Your task to perform on an android device: change your default location settings in chrome Image 0: 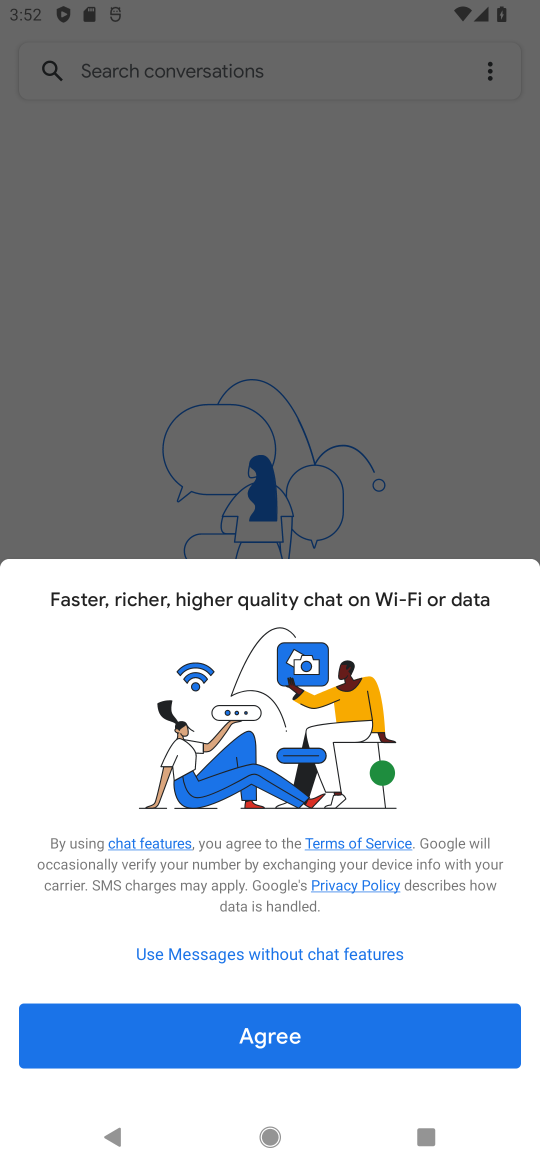
Step 0: press home button
Your task to perform on an android device: change your default location settings in chrome Image 1: 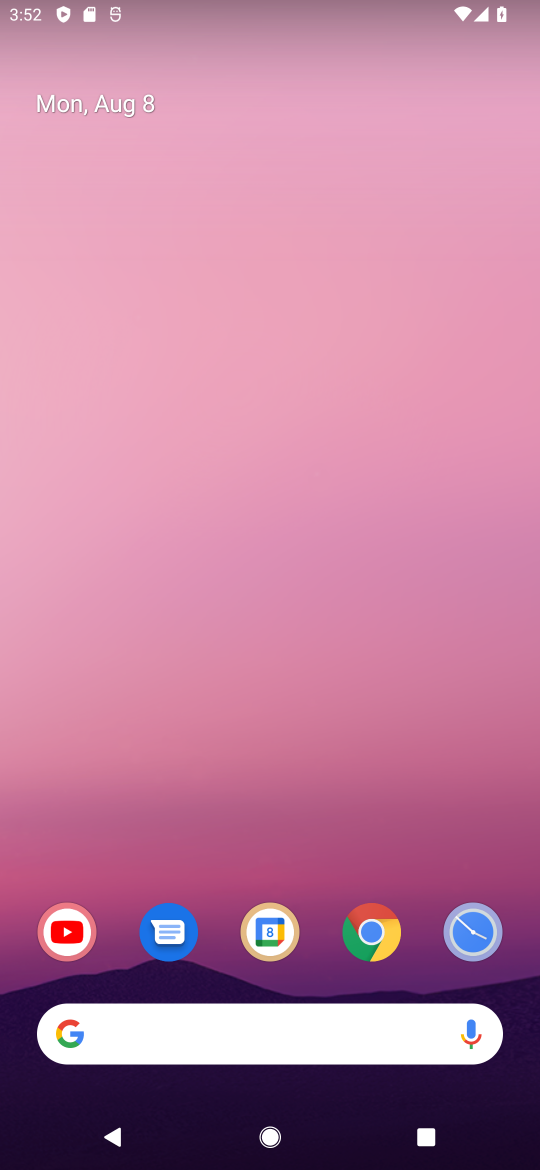
Step 1: click (377, 945)
Your task to perform on an android device: change your default location settings in chrome Image 2: 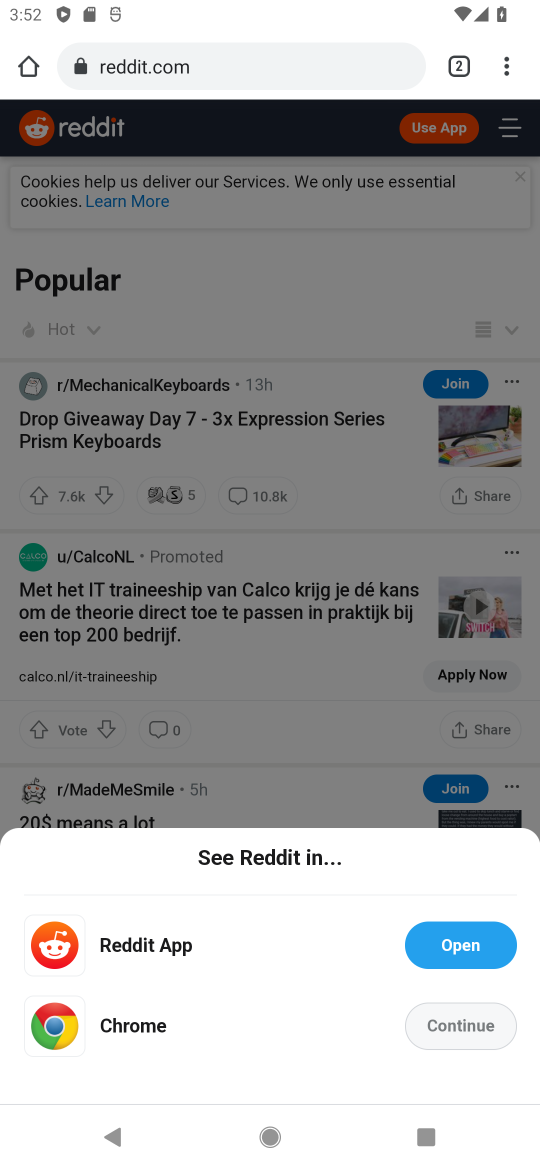
Step 2: click (515, 82)
Your task to perform on an android device: change your default location settings in chrome Image 3: 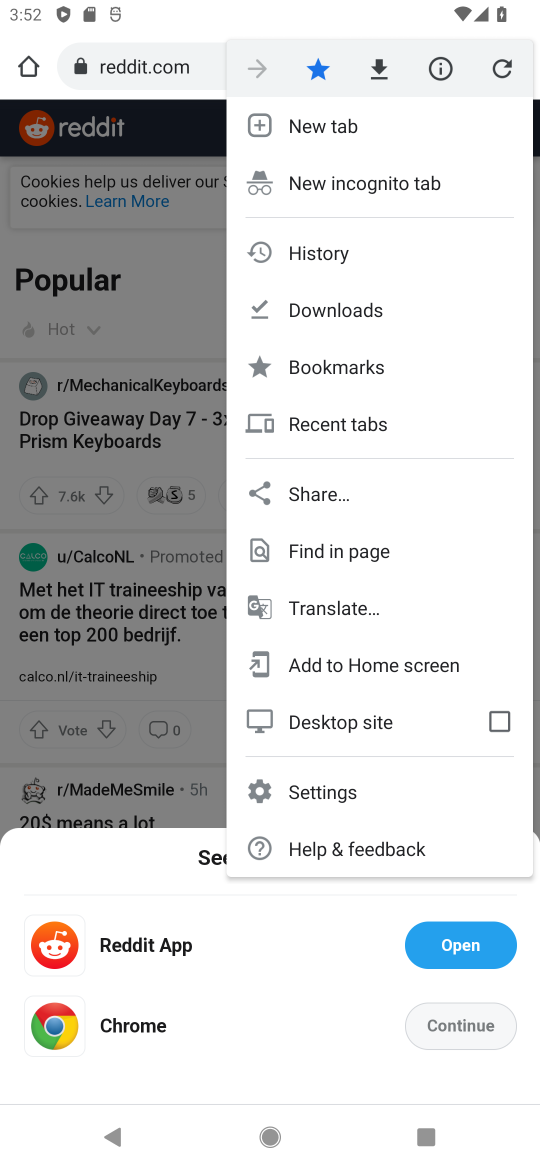
Step 3: click (317, 796)
Your task to perform on an android device: change your default location settings in chrome Image 4: 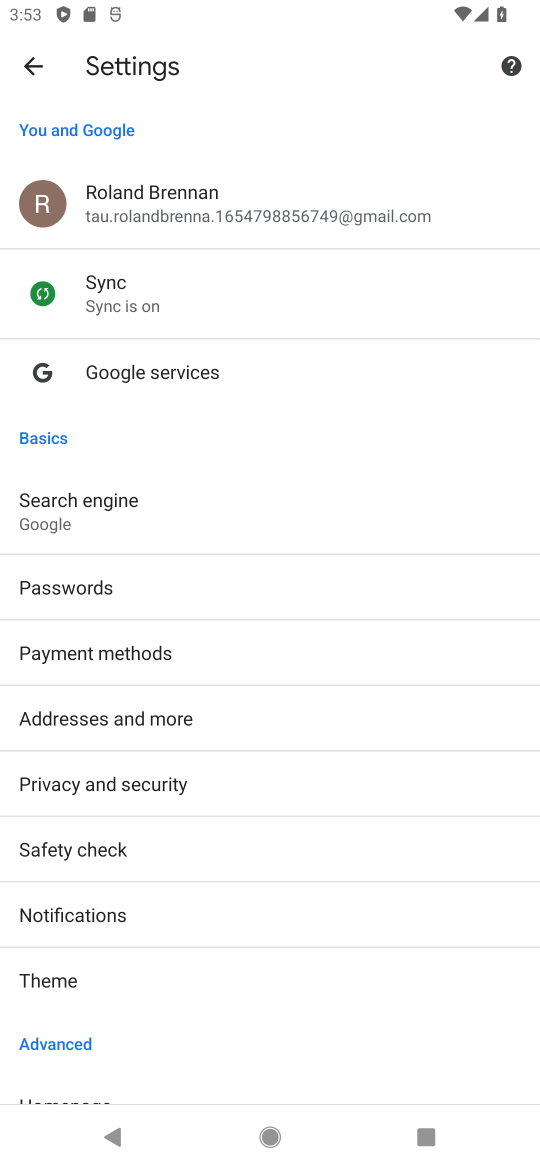
Step 4: drag from (346, 954) to (346, 377)
Your task to perform on an android device: change your default location settings in chrome Image 5: 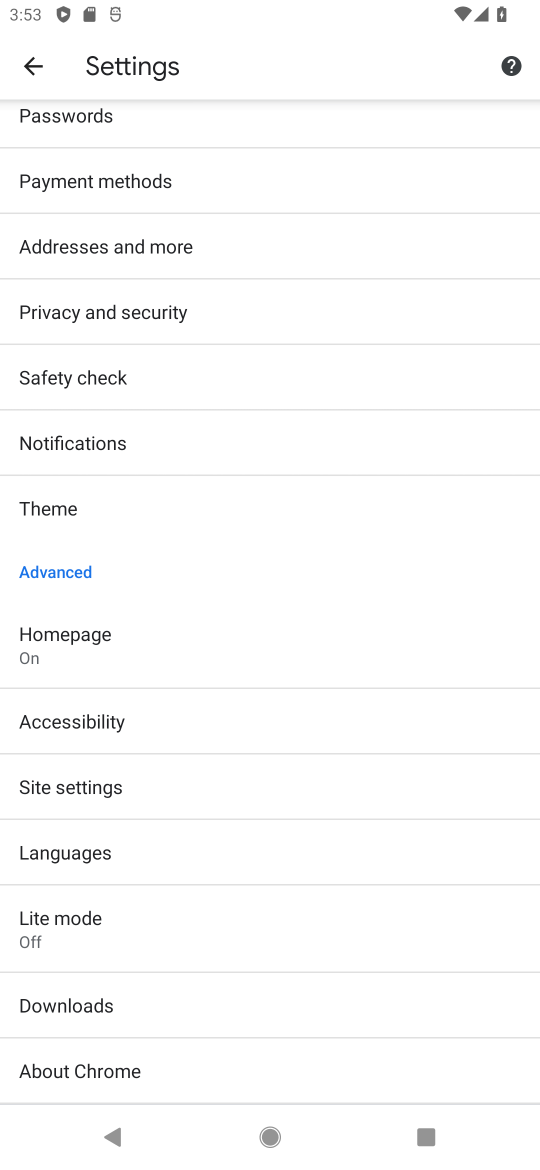
Step 5: click (102, 777)
Your task to perform on an android device: change your default location settings in chrome Image 6: 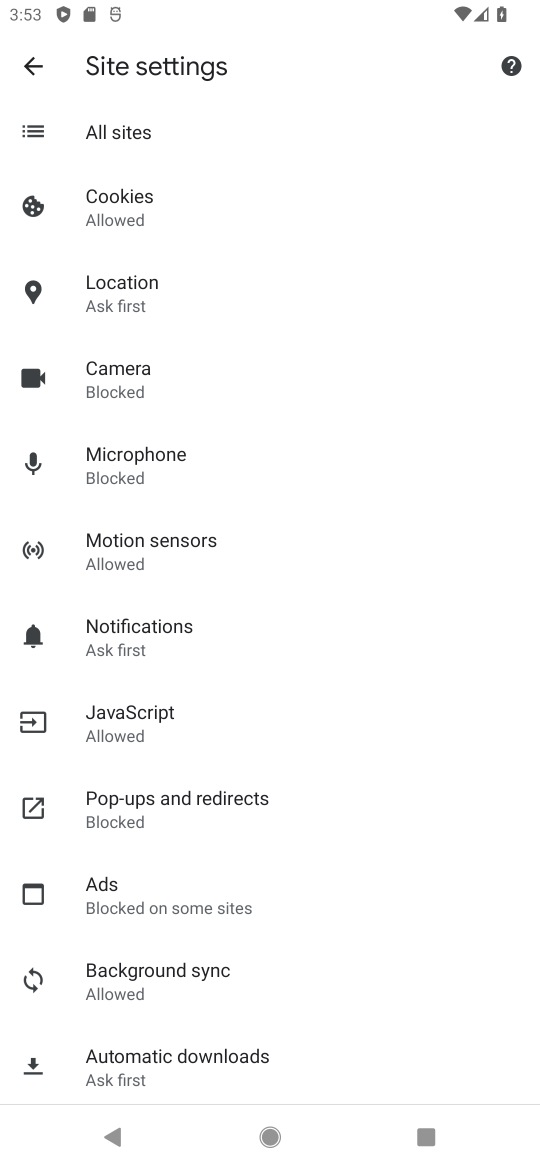
Step 6: drag from (402, 960) to (356, 179)
Your task to perform on an android device: change your default location settings in chrome Image 7: 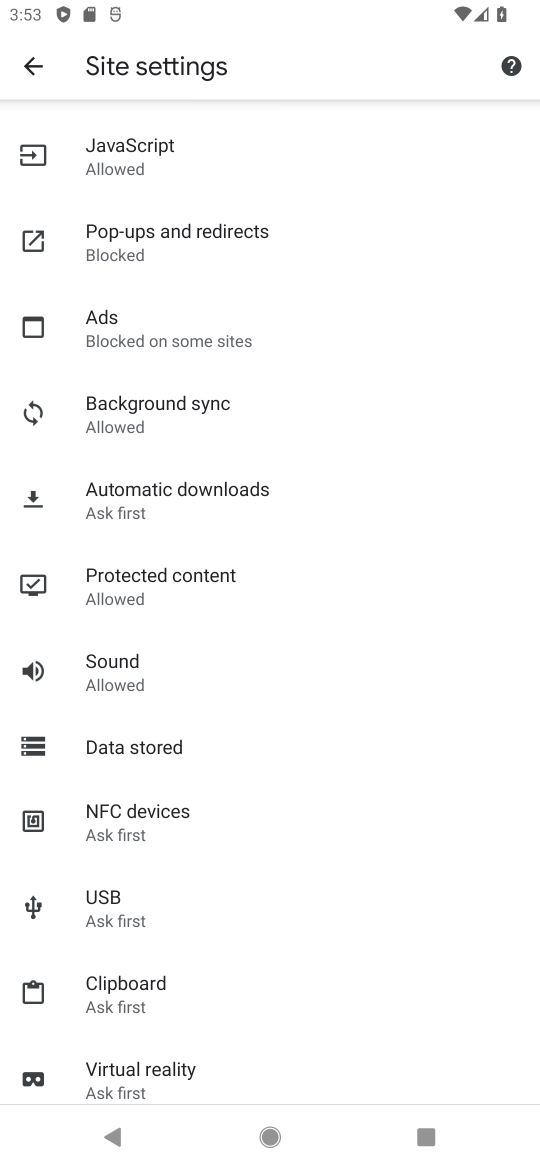
Step 7: drag from (311, 203) to (420, 1162)
Your task to perform on an android device: change your default location settings in chrome Image 8: 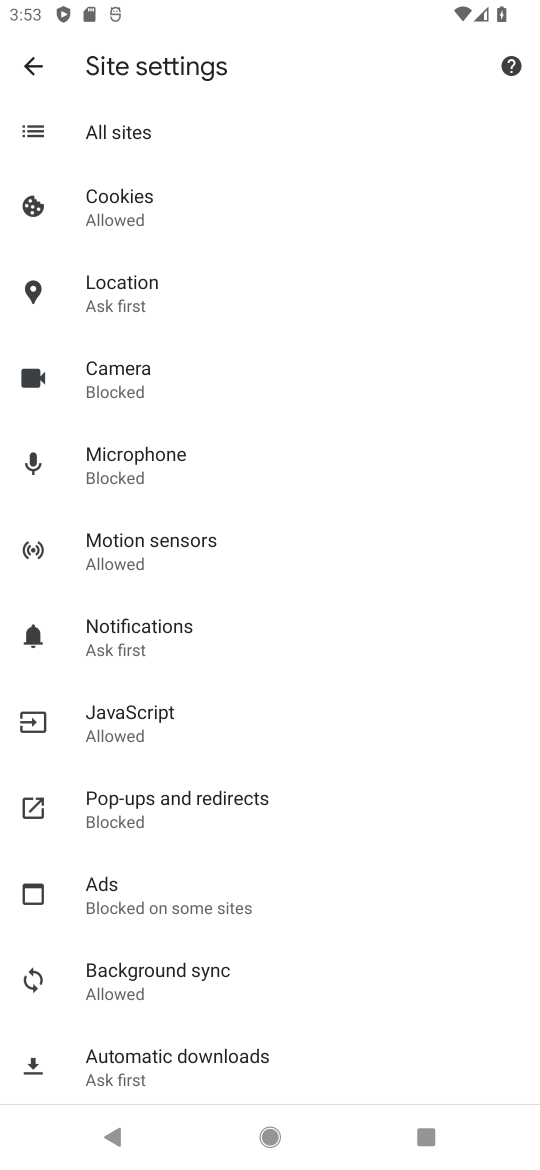
Step 8: click (173, 284)
Your task to perform on an android device: change your default location settings in chrome Image 9: 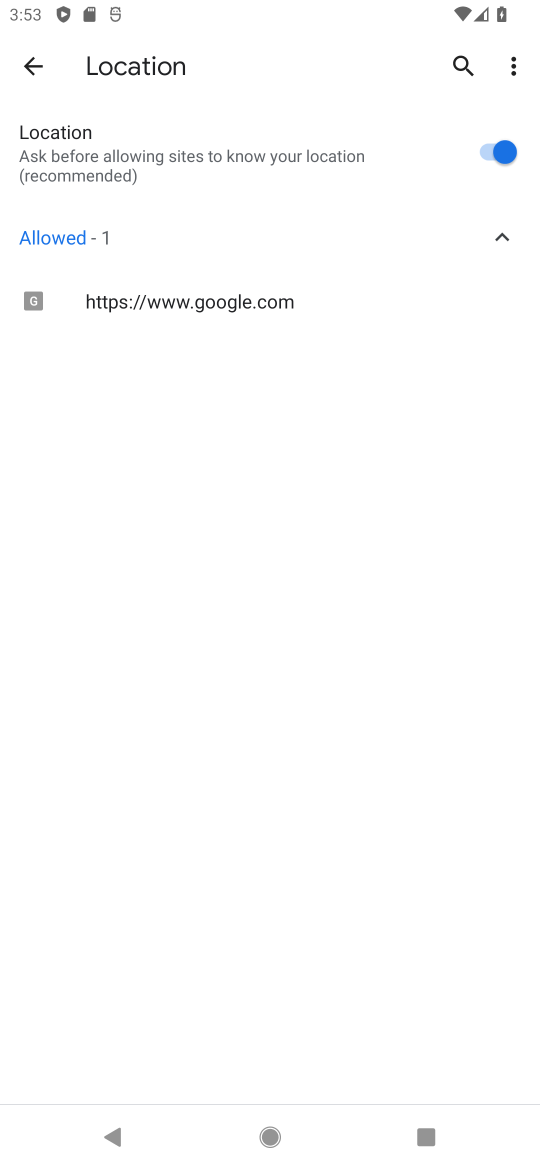
Step 9: click (488, 143)
Your task to perform on an android device: change your default location settings in chrome Image 10: 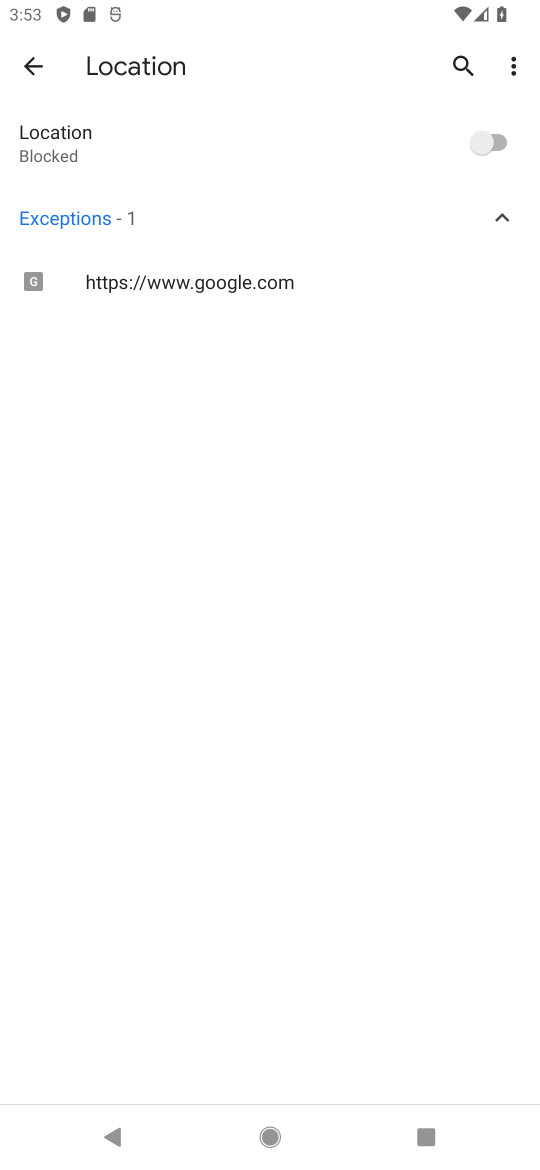
Step 10: task complete